Your task to perform on an android device: turn on javascript in the chrome app Image 0: 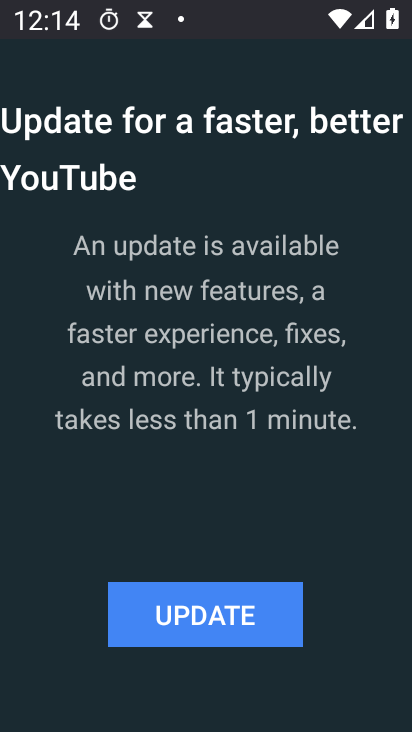
Step 0: press home button
Your task to perform on an android device: turn on javascript in the chrome app Image 1: 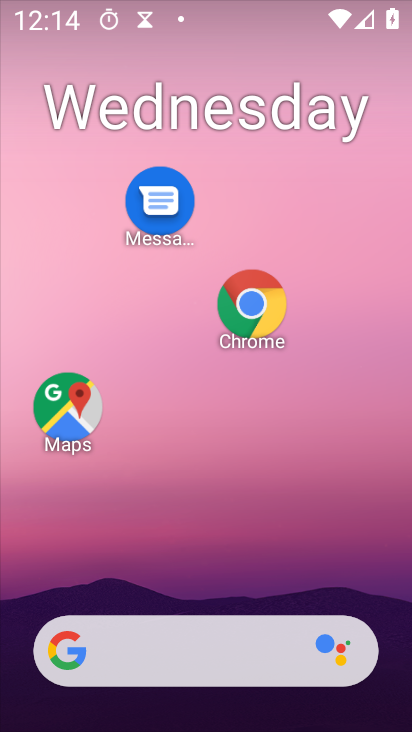
Step 1: drag from (242, 549) to (277, 237)
Your task to perform on an android device: turn on javascript in the chrome app Image 2: 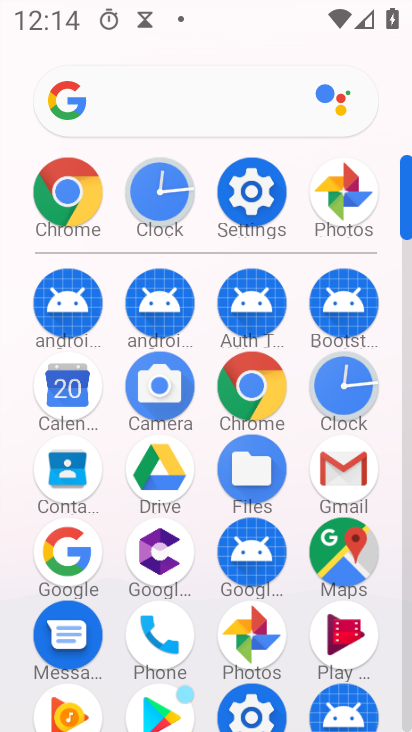
Step 2: click (255, 378)
Your task to perform on an android device: turn on javascript in the chrome app Image 3: 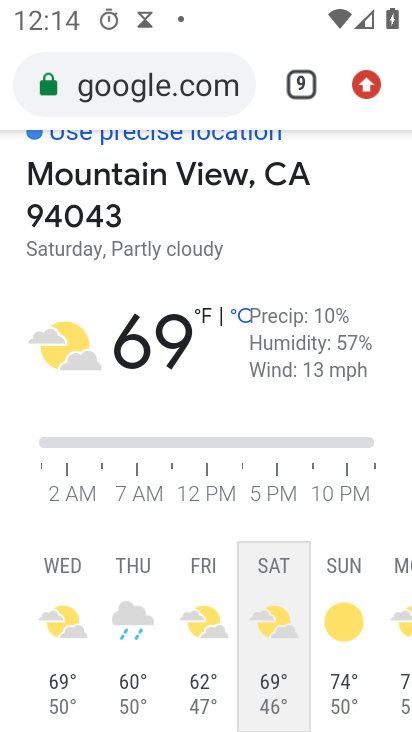
Step 3: click (361, 81)
Your task to perform on an android device: turn on javascript in the chrome app Image 4: 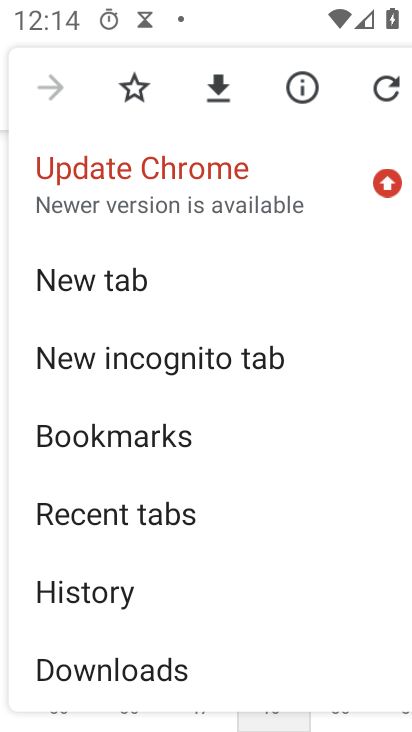
Step 4: drag from (243, 580) to (232, 163)
Your task to perform on an android device: turn on javascript in the chrome app Image 5: 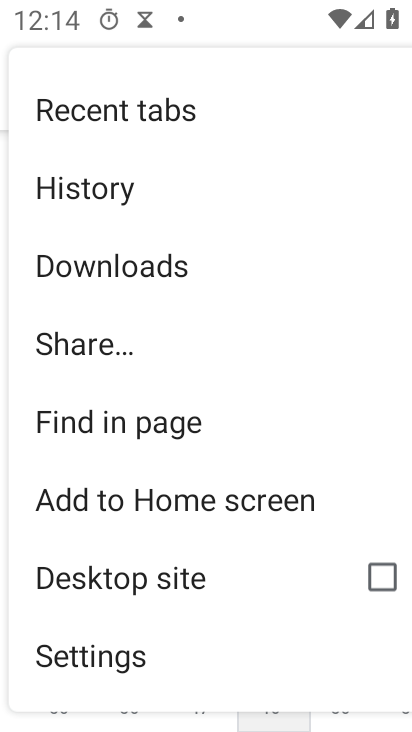
Step 5: click (161, 654)
Your task to perform on an android device: turn on javascript in the chrome app Image 6: 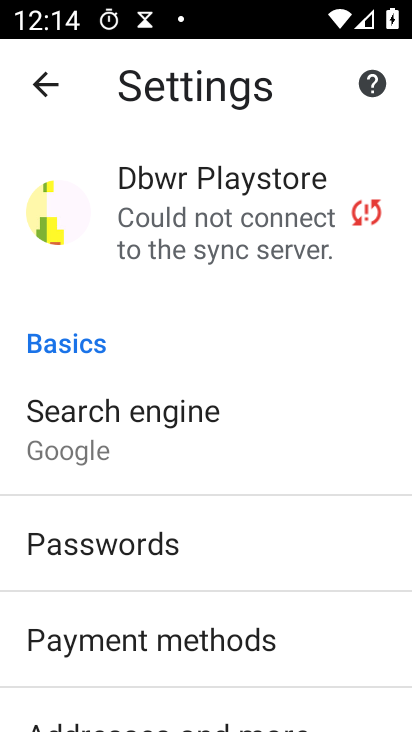
Step 6: drag from (175, 609) to (237, 288)
Your task to perform on an android device: turn on javascript in the chrome app Image 7: 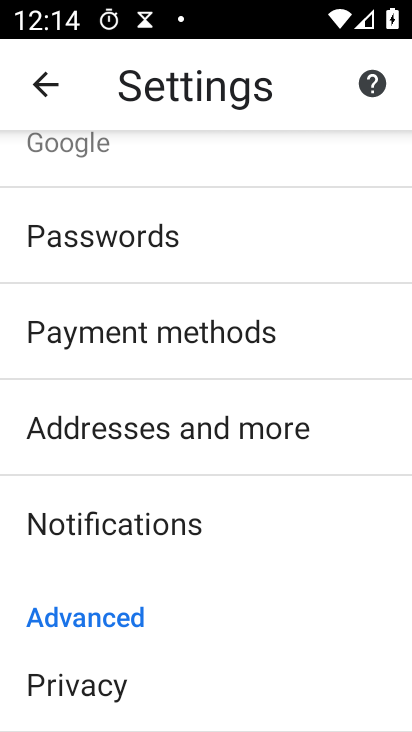
Step 7: drag from (252, 618) to (333, 214)
Your task to perform on an android device: turn on javascript in the chrome app Image 8: 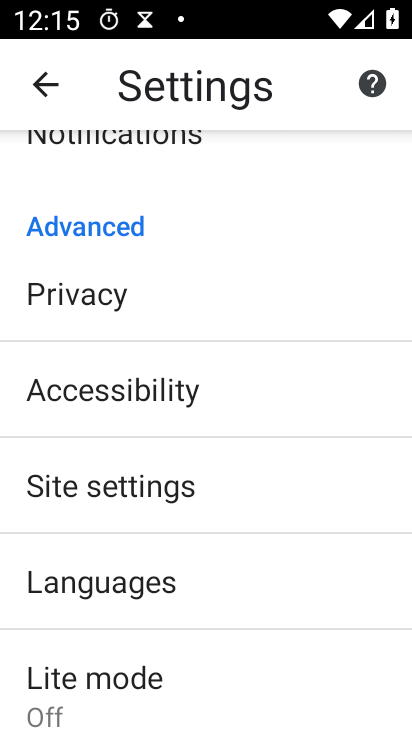
Step 8: click (226, 470)
Your task to perform on an android device: turn on javascript in the chrome app Image 9: 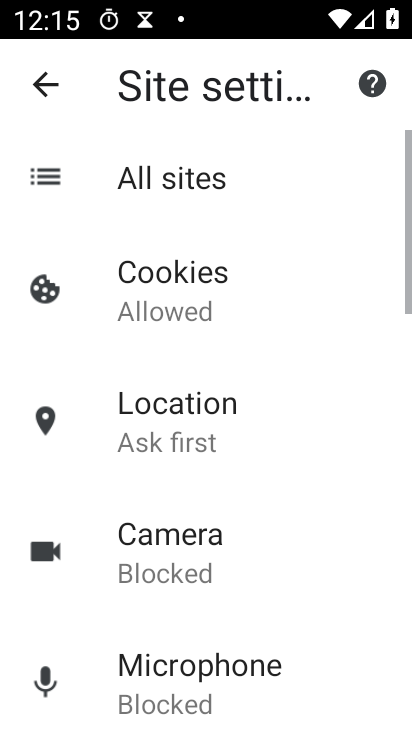
Step 9: drag from (245, 689) to (329, 203)
Your task to perform on an android device: turn on javascript in the chrome app Image 10: 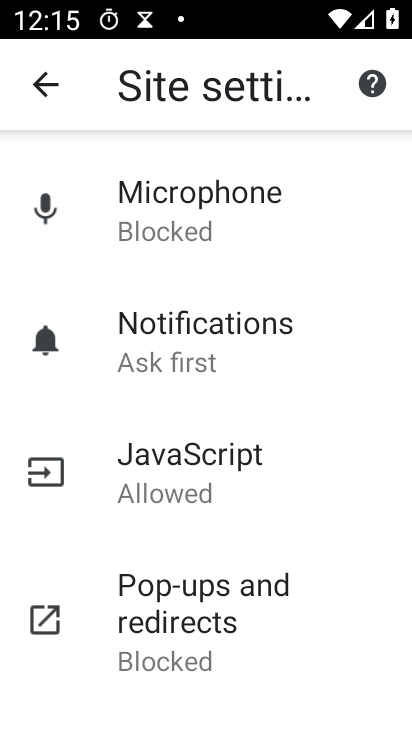
Step 10: click (257, 447)
Your task to perform on an android device: turn on javascript in the chrome app Image 11: 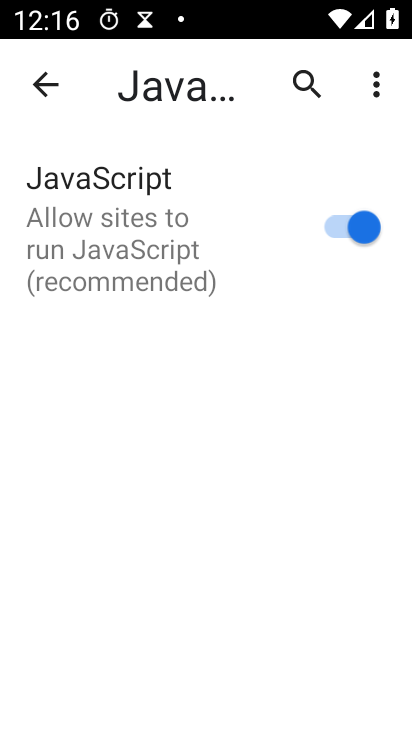
Step 11: task complete